Your task to perform on an android device: toggle translation in the chrome app Image 0: 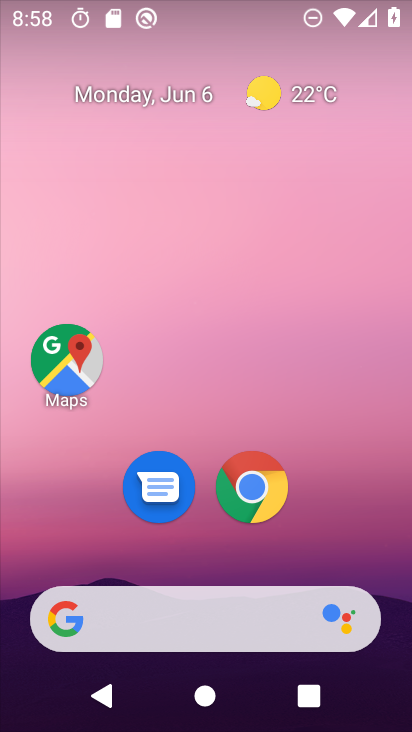
Step 0: drag from (405, 621) to (316, 40)
Your task to perform on an android device: toggle translation in the chrome app Image 1: 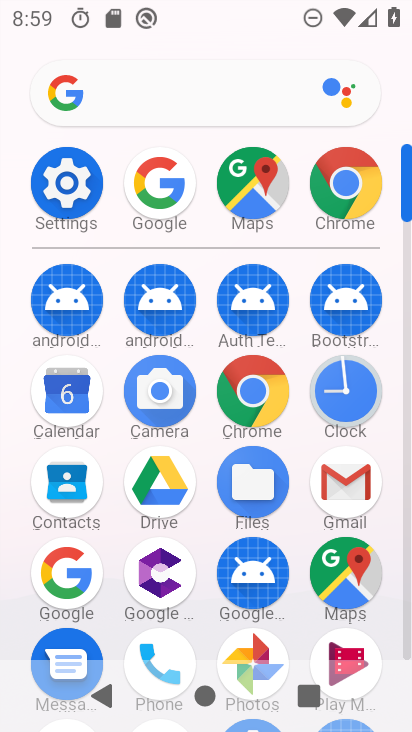
Step 1: click (251, 422)
Your task to perform on an android device: toggle translation in the chrome app Image 2: 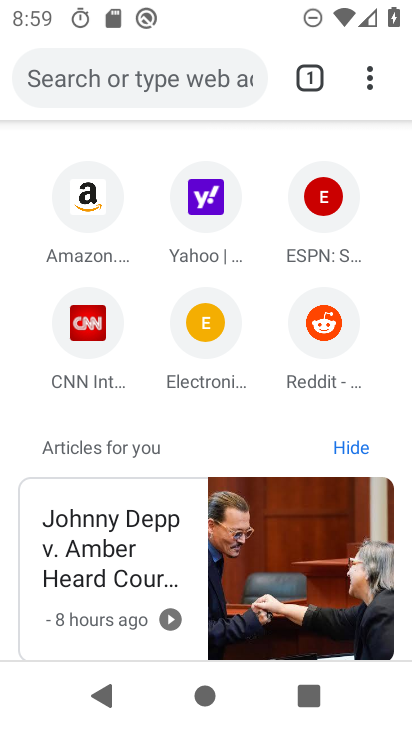
Step 2: click (372, 56)
Your task to perform on an android device: toggle translation in the chrome app Image 3: 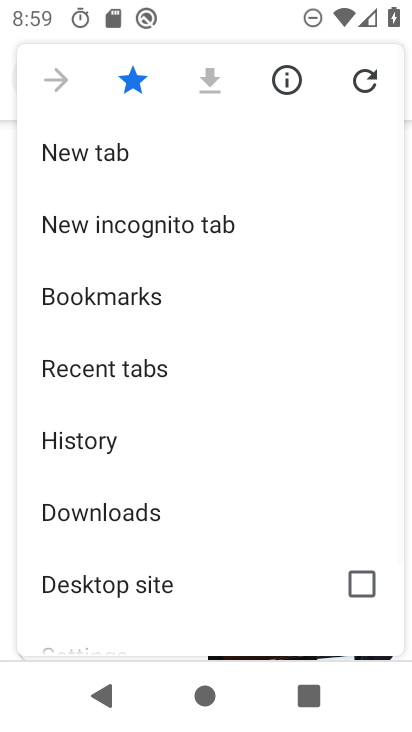
Step 3: drag from (169, 575) to (271, 160)
Your task to perform on an android device: toggle translation in the chrome app Image 4: 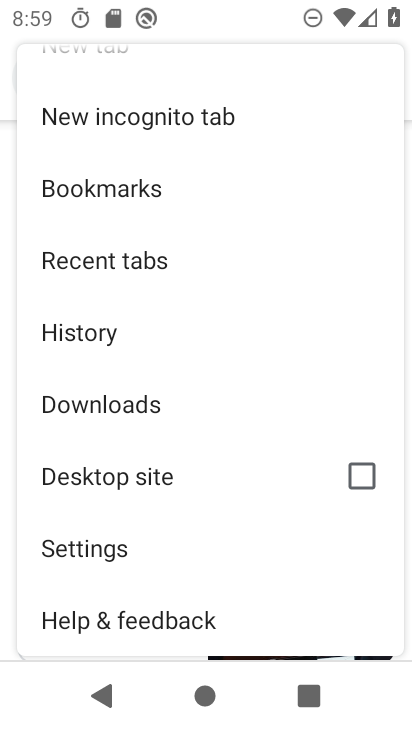
Step 4: click (125, 550)
Your task to perform on an android device: toggle translation in the chrome app Image 5: 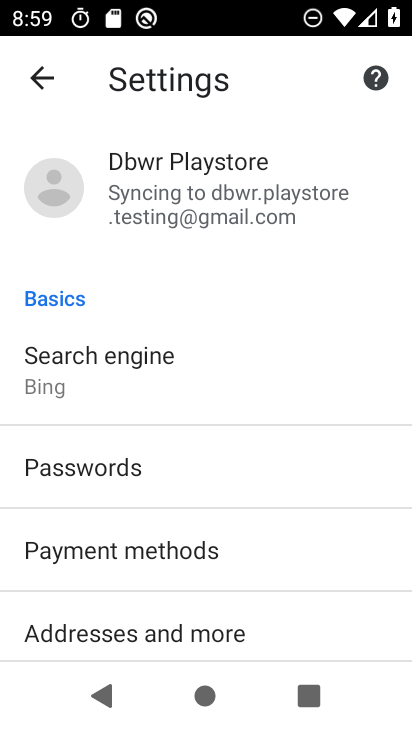
Step 5: drag from (171, 622) to (273, 120)
Your task to perform on an android device: toggle translation in the chrome app Image 6: 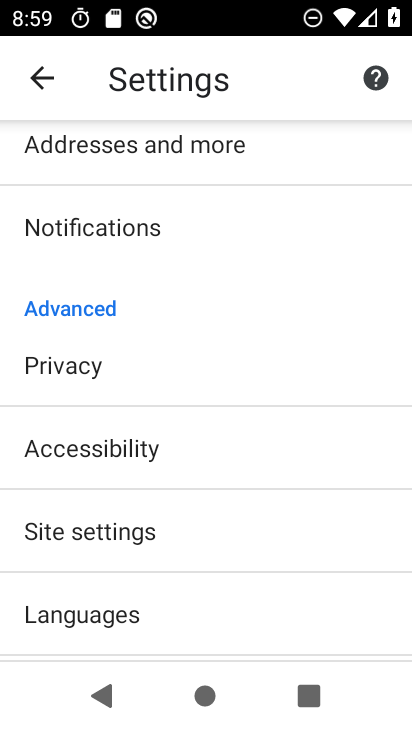
Step 6: click (213, 591)
Your task to perform on an android device: toggle translation in the chrome app Image 7: 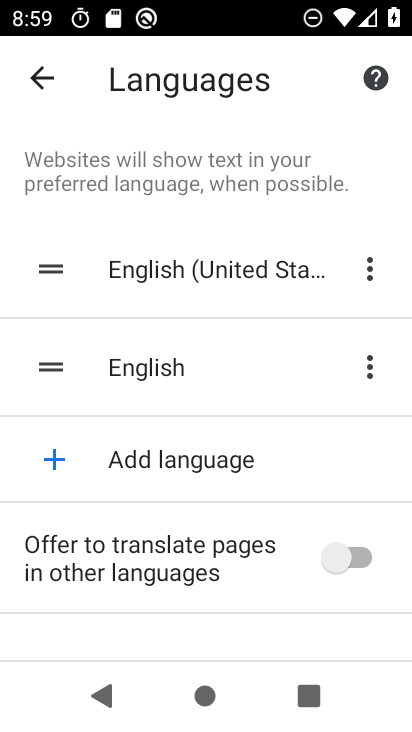
Step 7: click (378, 539)
Your task to perform on an android device: toggle translation in the chrome app Image 8: 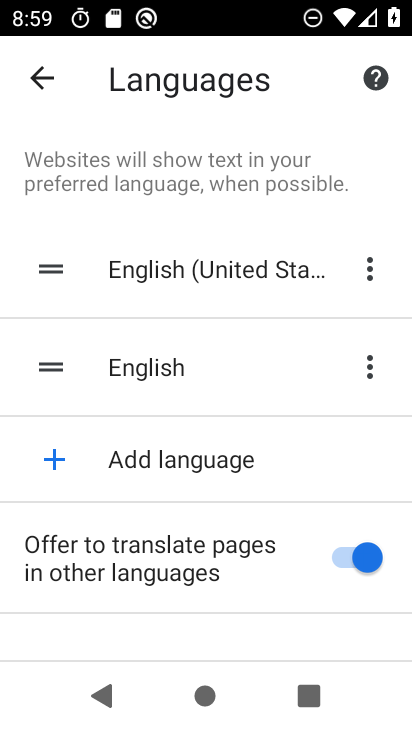
Step 8: task complete